Your task to perform on an android device: What's on my calendar tomorrow? Image 0: 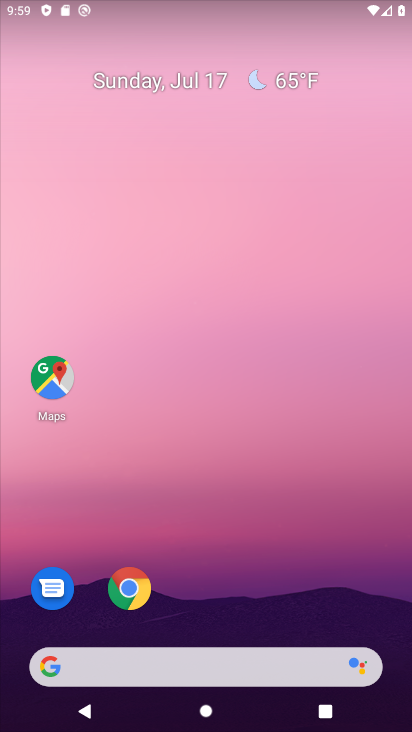
Step 0: drag from (241, 541) to (169, 220)
Your task to perform on an android device: What's on my calendar tomorrow? Image 1: 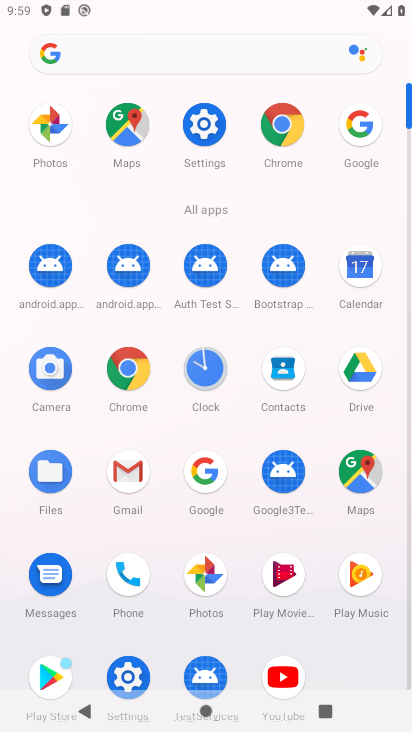
Step 1: click (358, 273)
Your task to perform on an android device: What's on my calendar tomorrow? Image 2: 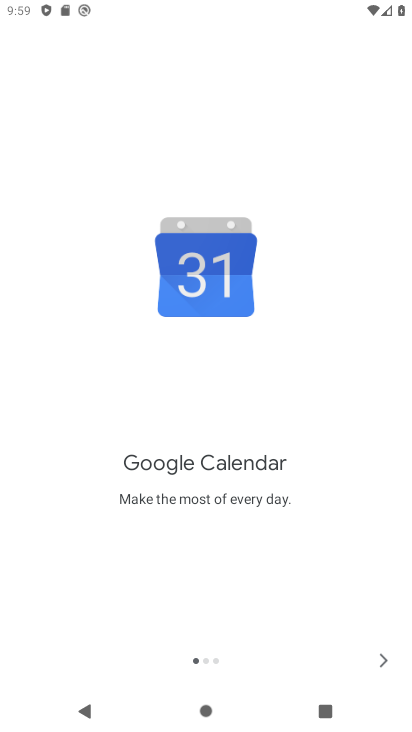
Step 2: click (380, 660)
Your task to perform on an android device: What's on my calendar tomorrow? Image 3: 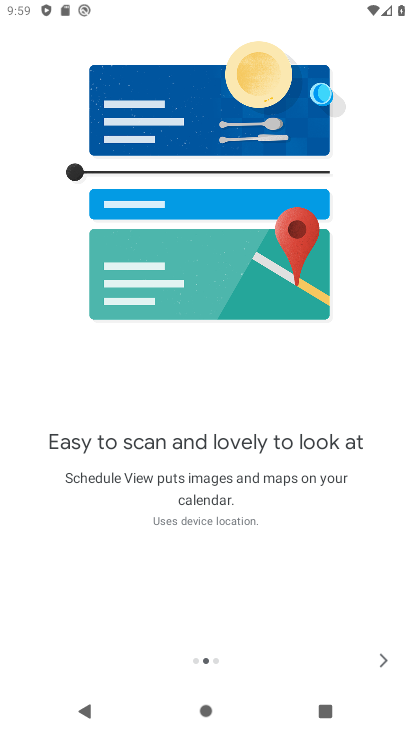
Step 3: click (378, 649)
Your task to perform on an android device: What's on my calendar tomorrow? Image 4: 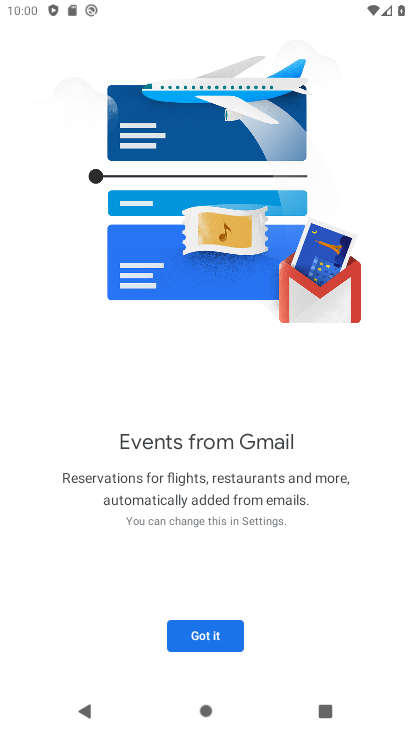
Step 4: click (220, 623)
Your task to perform on an android device: What's on my calendar tomorrow? Image 5: 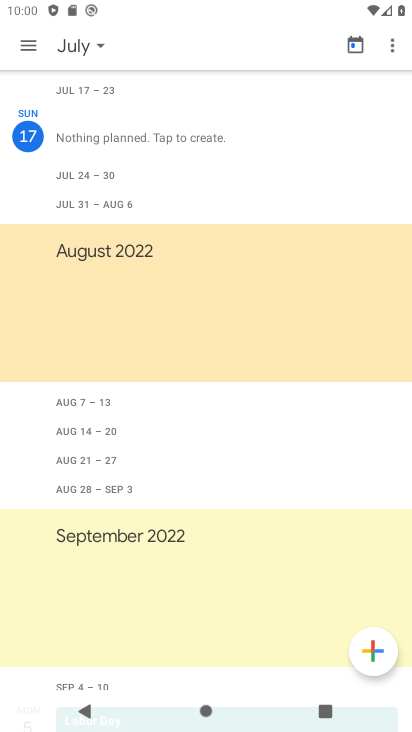
Step 5: click (96, 41)
Your task to perform on an android device: What's on my calendar tomorrow? Image 6: 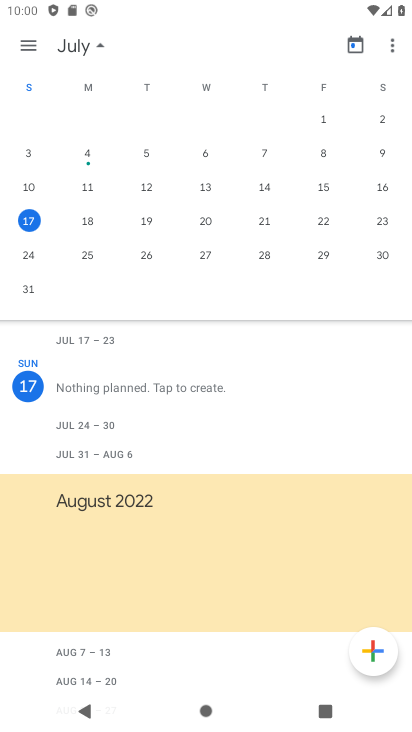
Step 6: click (90, 39)
Your task to perform on an android device: What's on my calendar tomorrow? Image 7: 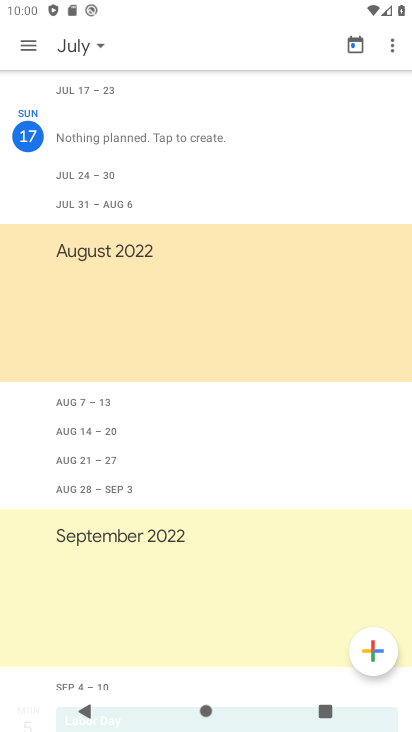
Step 7: click (100, 43)
Your task to perform on an android device: What's on my calendar tomorrow? Image 8: 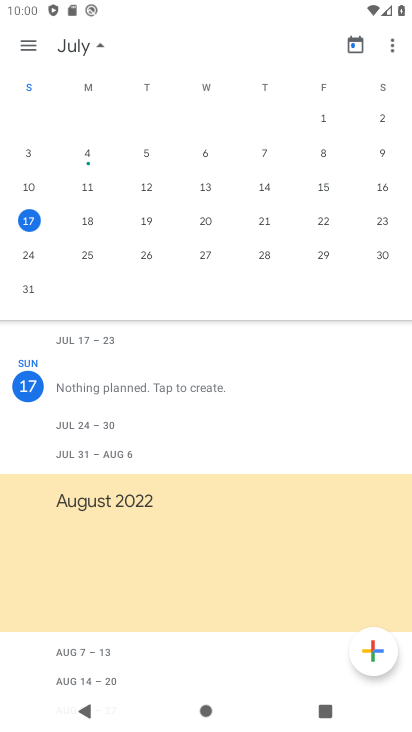
Step 8: click (86, 219)
Your task to perform on an android device: What's on my calendar tomorrow? Image 9: 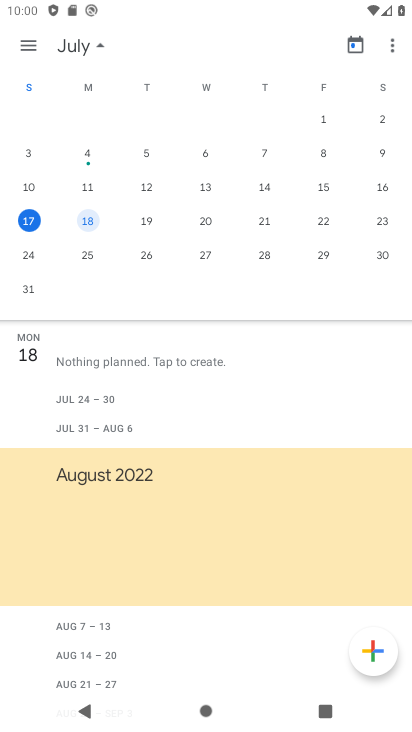
Step 9: click (86, 219)
Your task to perform on an android device: What's on my calendar tomorrow? Image 10: 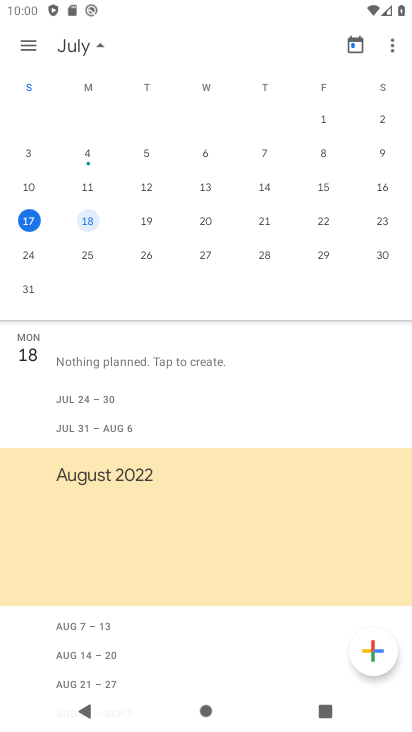
Step 10: task complete